Your task to perform on an android device: Open calendar and show me the second week of next month Image 0: 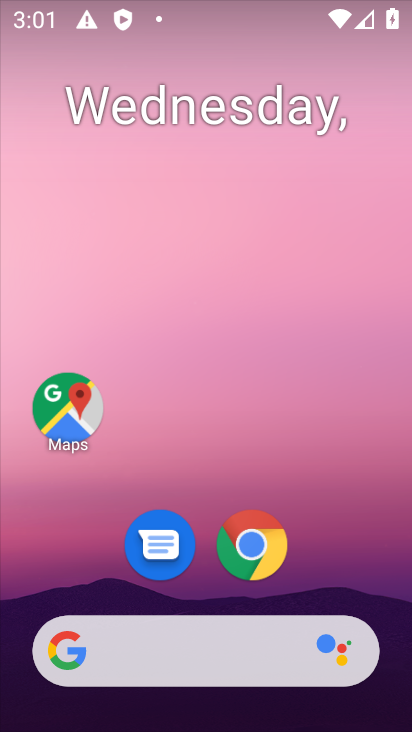
Step 0: drag from (215, 620) to (270, 13)
Your task to perform on an android device: Open calendar and show me the second week of next month Image 1: 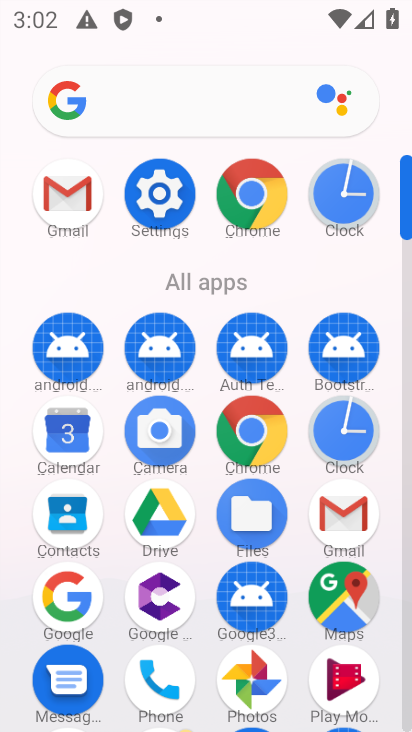
Step 1: click (52, 441)
Your task to perform on an android device: Open calendar and show me the second week of next month Image 2: 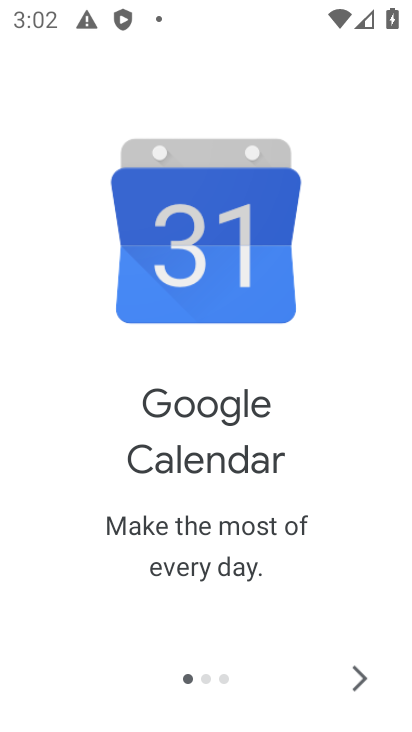
Step 2: click (360, 676)
Your task to perform on an android device: Open calendar and show me the second week of next month Image 3: 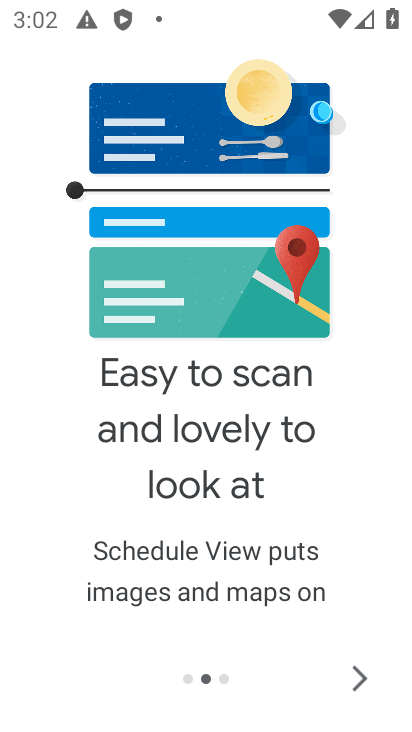
Step 3: click (368, 677)
Your task to perform on an android device: Open calendar and show me the second week of next month Image 4: 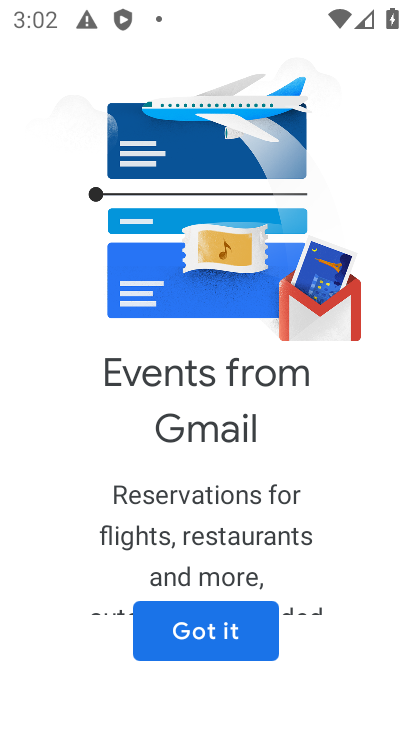
Step 4: click (253, 645)
Your task to perform on an android device: Open calendar and show me the second week of next month Image 5: 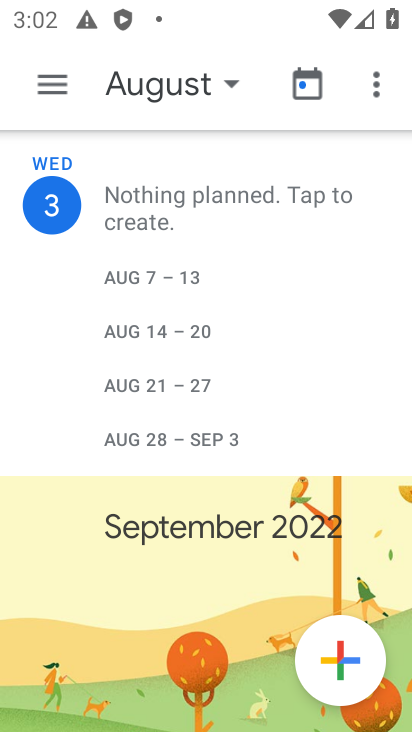
Step 5: click (56, 78)
Your task to perform on an android device: Open calendar and show me the second week of next month Image 6: 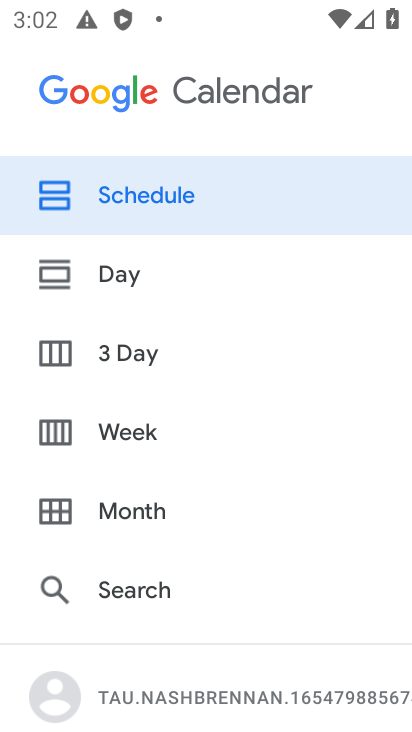
Step 6: click (151, 515)
Your task to perform on an android device: Open calendar and show me the second week of next month Image 7: 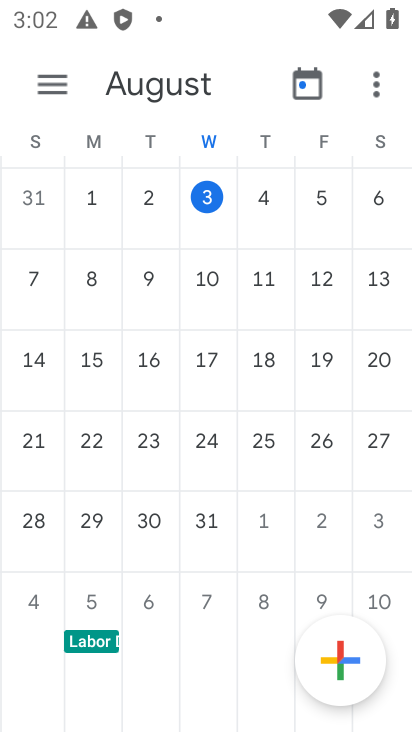
Step 7: task complete